Your task to perform on an android device: Show me popular videos on Youtube Image 0: 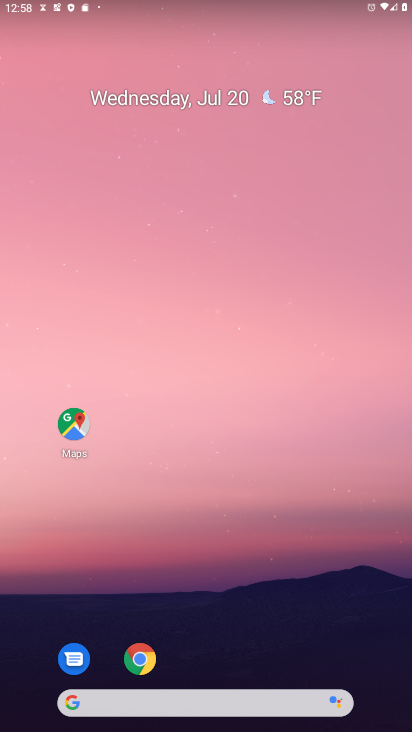
Step 0: press home button
Your task to perform on an android device: Show me popular videos on Youtube Image 1: 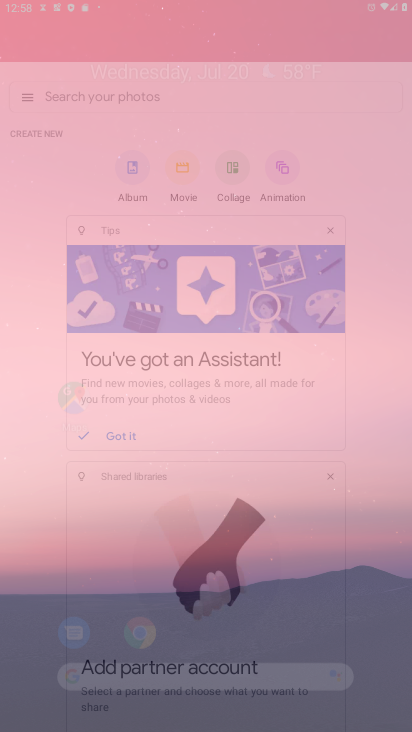
Step 1: click (72, 419)
Your task to perform on an android device: Show me popular videos on Youtube Image 2: 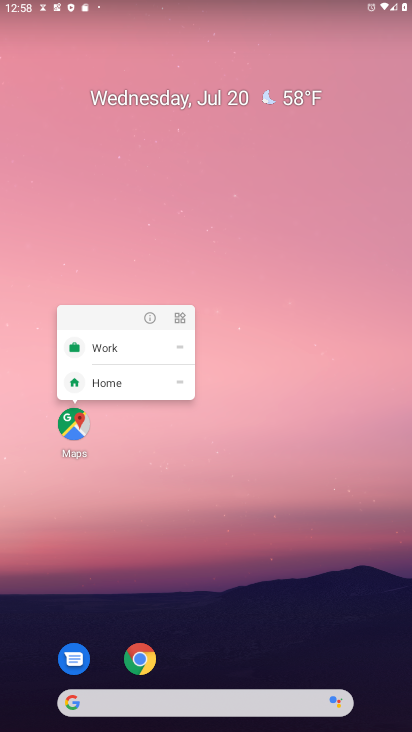
Step 2: drag from (233, 656) to (306, 223)
Your task to perform on an android device: Show me popular videos on Youtube Image 3: 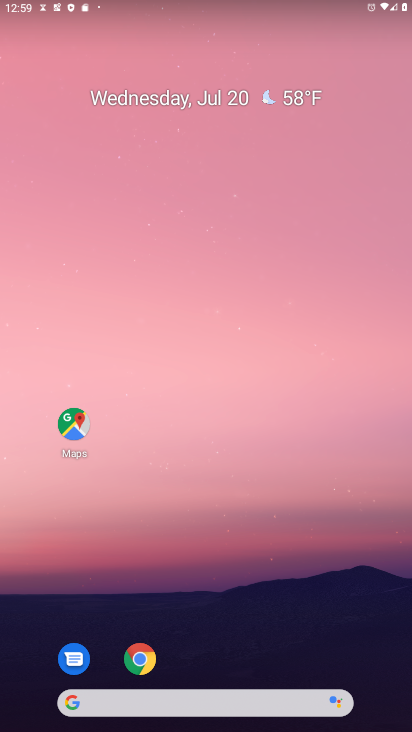
Step 3: drag from (236, 642) to (291, 179)
Your task to perform on an android device: Show me popular videos on Youtube Image 4: 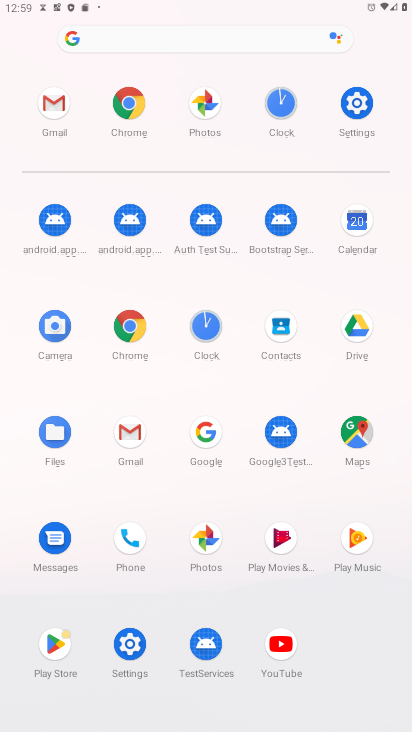
Step 4: click (278, 635)
Your task to perform on an android device: Show me popular videos on Youtube Image 5: 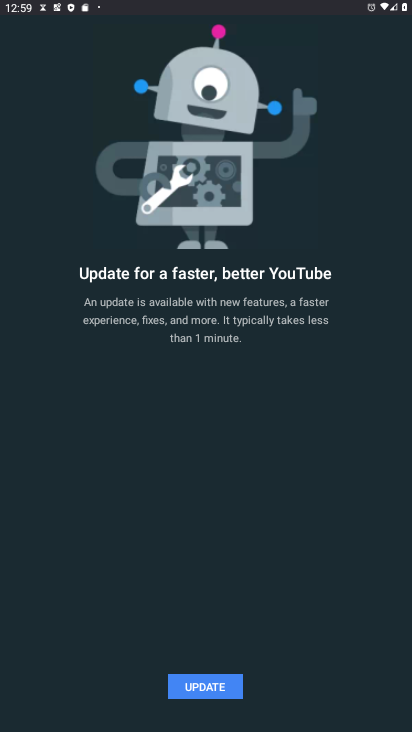
Step 5: click (211, 684)
Your task to perform on an android device: Show me popular videos on Youtube Image 6: 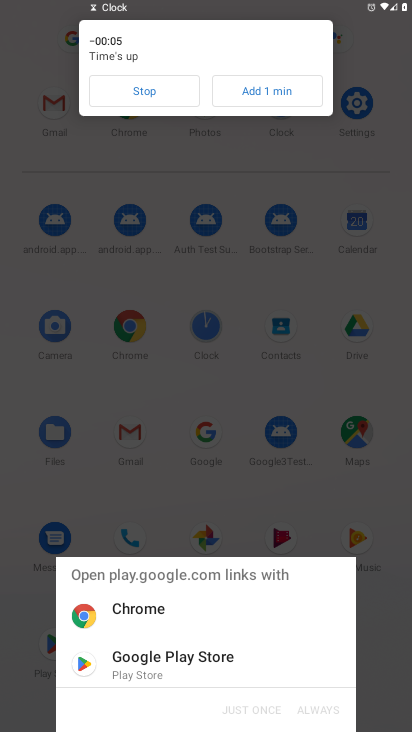
Step 6: click (160, 662)
Your task to perform on an android device: Show me popular videos on Youtube Image 7: 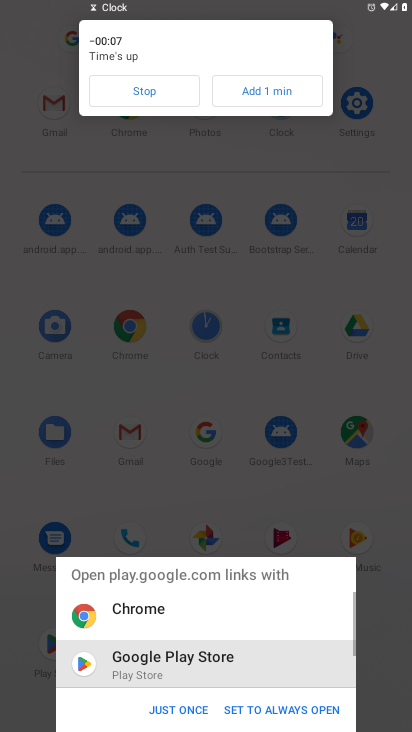
Step 7: click (177, 709)
Your task to perform on an android device: Show me popular videos on Youtube Image 8: 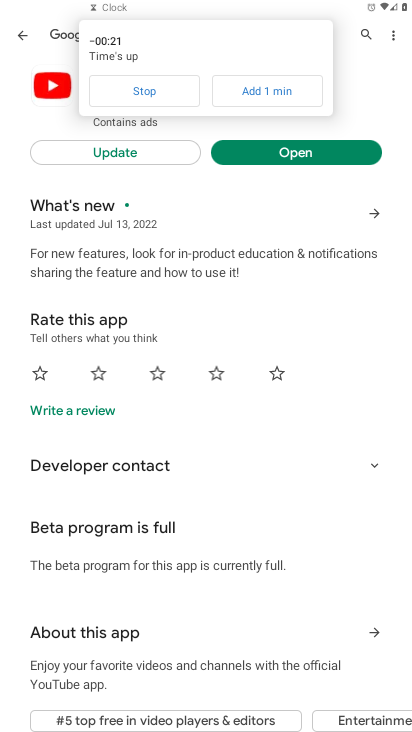
Step 8: click (155, 91)
Your task to perform on an android device: Show me popular videos on Youtube Image 9: 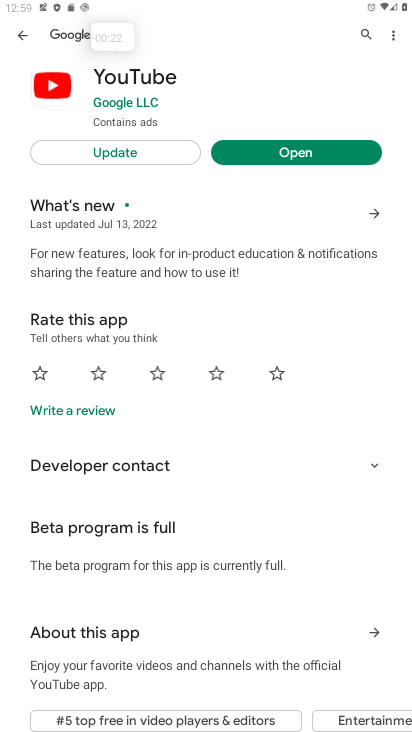
Step 9: click (118, 152)
Your task to perform on an android device: Show me popular videos on Youtube Image 10: 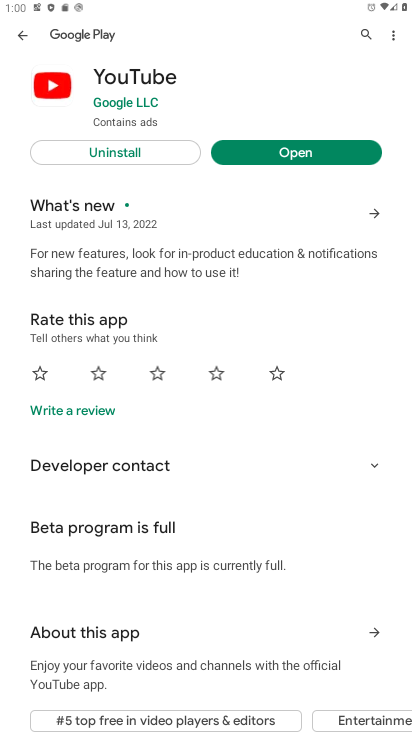
Step 10: click (312, 155)
Your task to perform on an android device: Show me popular videos on Youtube Image 11: 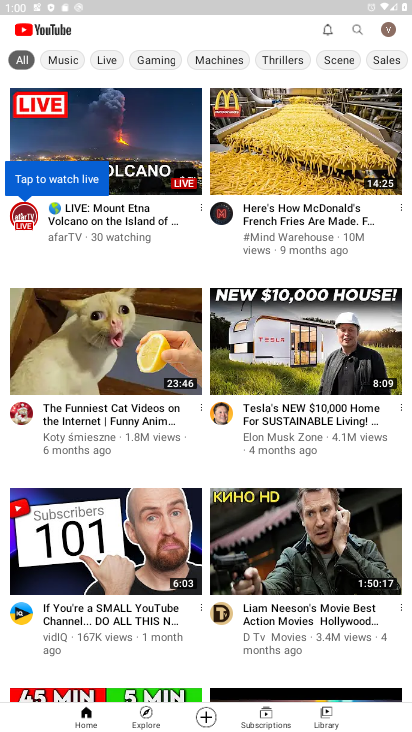
Step 11: click (324, 716)
Your task to perform on an android device: Show me popular videos on Youtube Image 12: 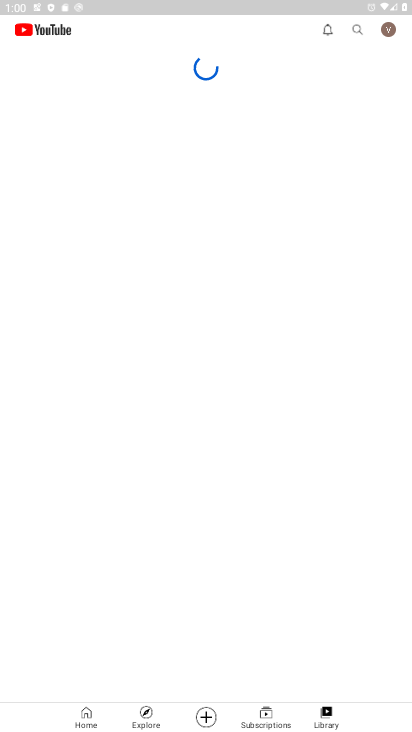
Step 12: click (141, 723)
Your task to perform on an android device: Show me popular videos on Youtube Image 13: 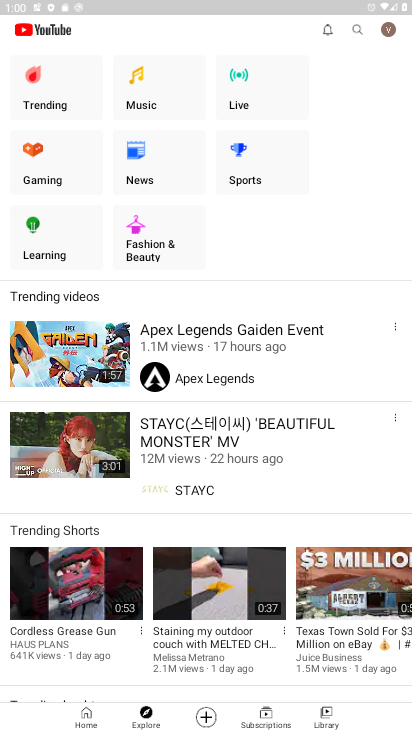
Step 13: click (62, 87)
Your task to perform on an android device: Show me popular videos on Youtube Image 14: 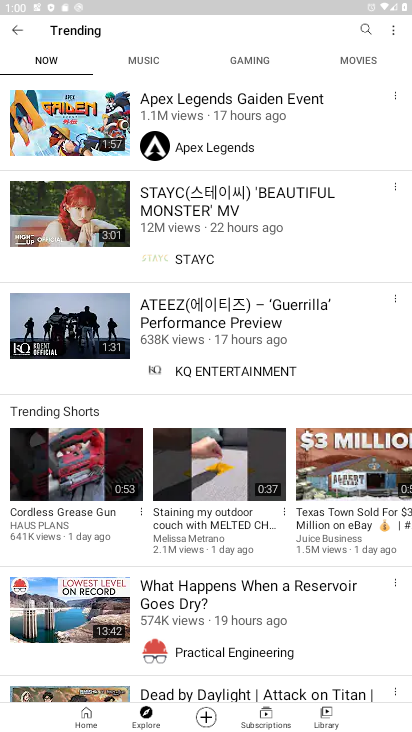
Step 14: task complete